Your task to perform on an android device: find photos in the google photos app Image 0: 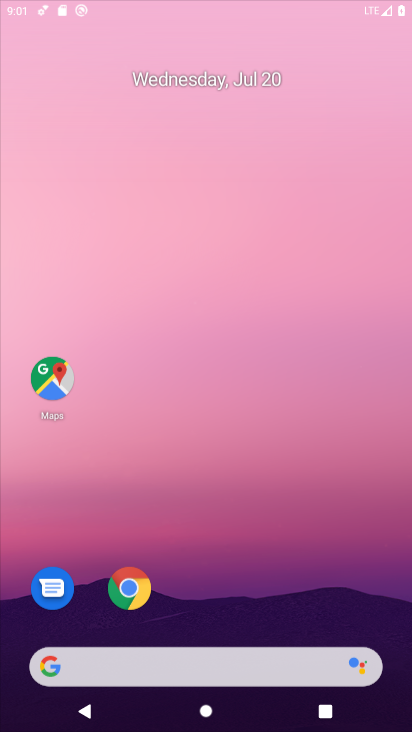
Step 0: press home button
Your task to perform on an android device: find photos in the google photos app Image 1: 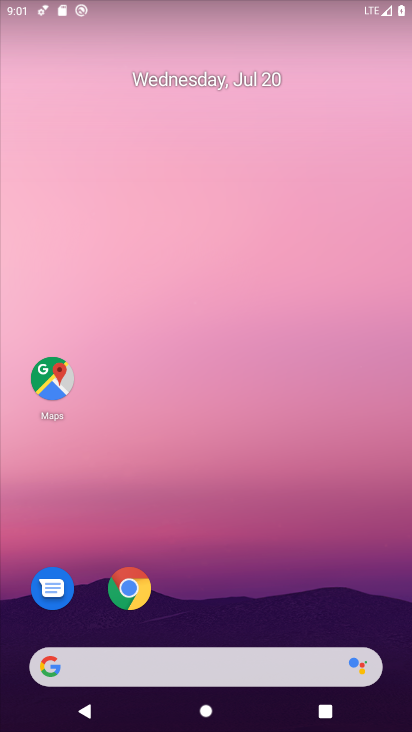
Step 1: drag from (207, 625) to (216, 0)
Your task to perform on an android device: find photos in the google photos app Image 2: 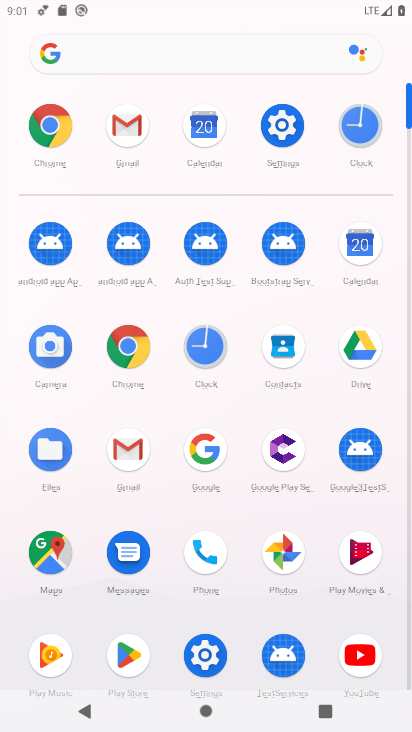
Step 2: click (283, 545)
Your task to perform on an android device: find photos in the google photos app Image 3: 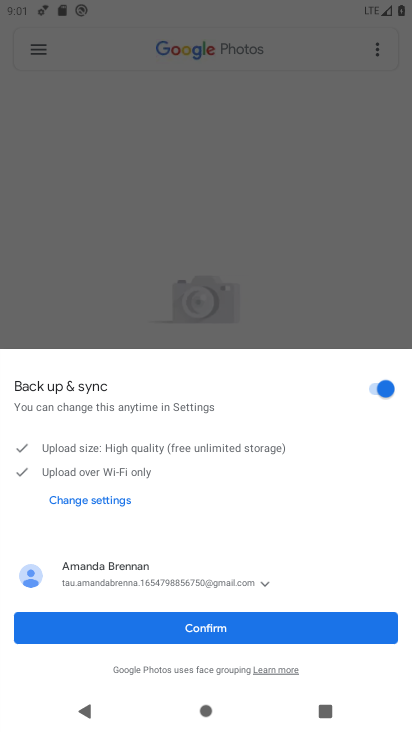
Step 3: click (149, 274)
Your task to perform on an android device: find photos in the google photos app Image 4: 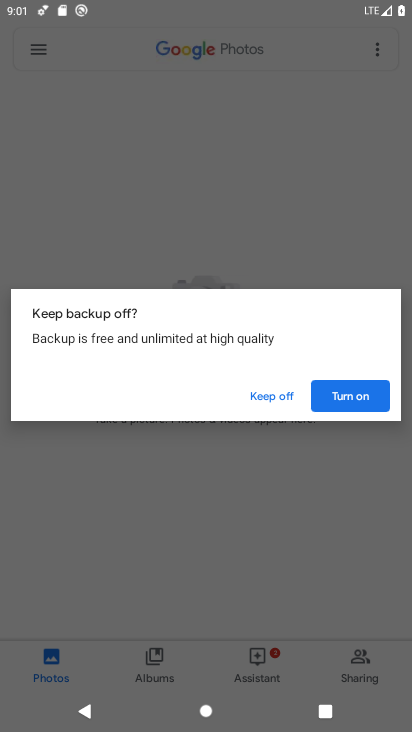
Step 4: click (268, 395)
Your task to perform on an android device: find photos in the google photos app Image 5: 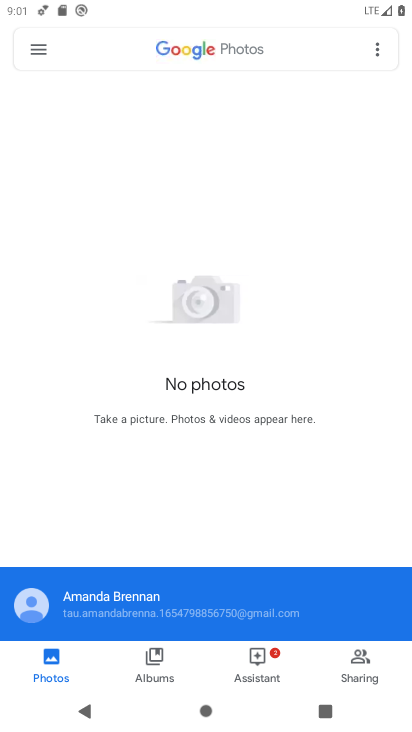
Step 5: click (47, 658)
Your task to perform on an android device: find photos in the google photos app Image 6: 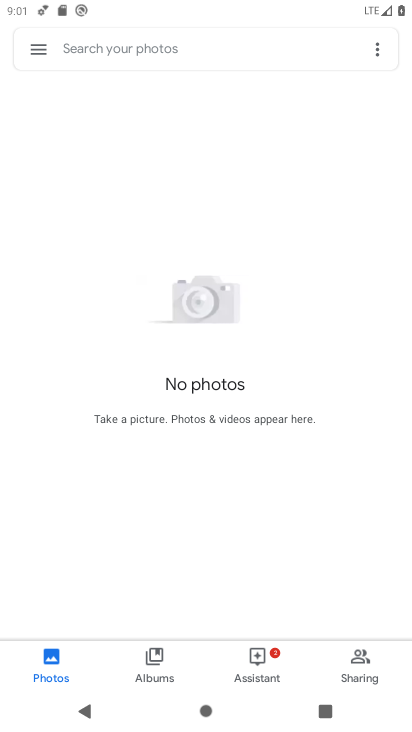
Step 6: task complete